Your task to perform on an android device: check android version Image 0: 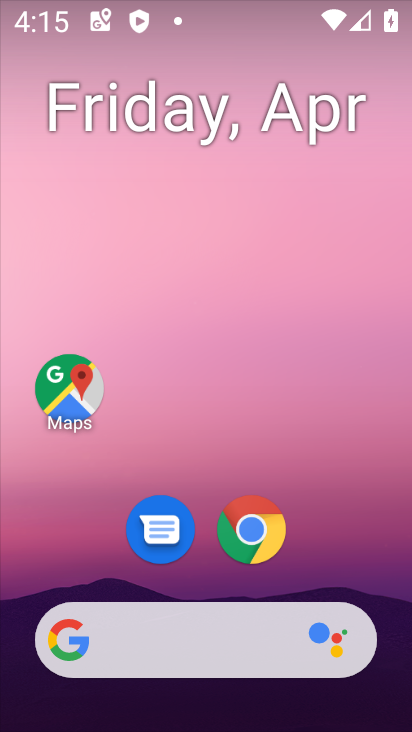
Step 0: drag from (213, 574) to (226, 92)
Your task to perform on an android device: check android version Image 1: 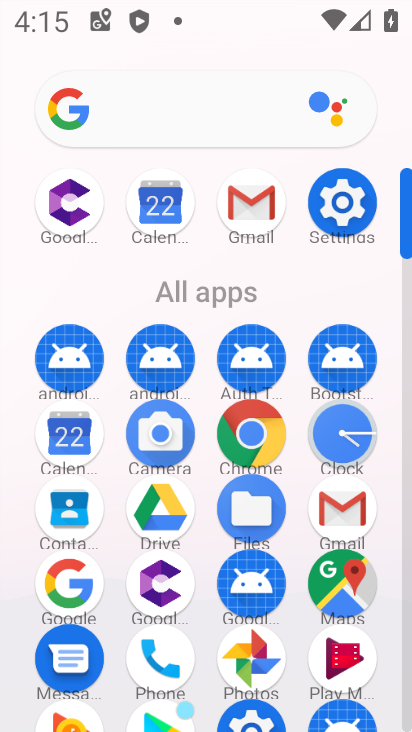
Step 1: drag from (200, 627) to (194, 311)
Your task to perform on an android device: check android version Image 2: 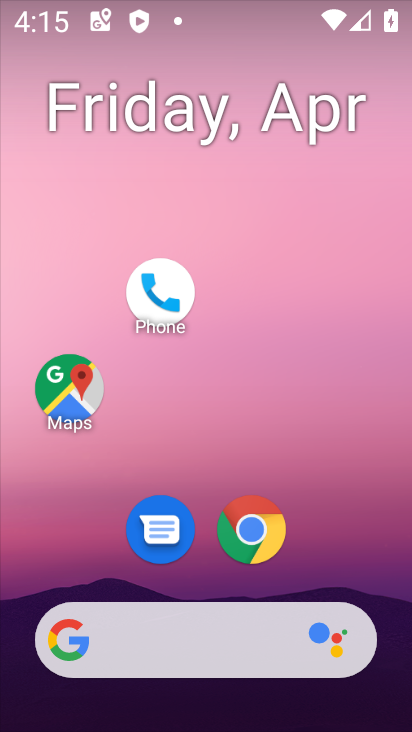
Step 2: drag from (321, 573) to (315, 171)
Your task to perform on an android device: check android version Image 3: 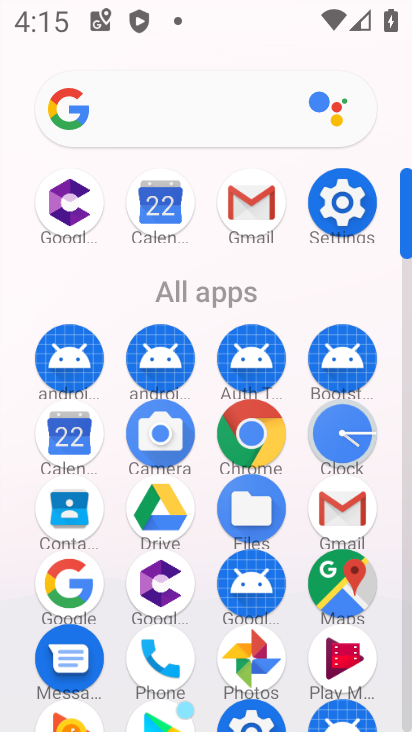
Step 3: click (343, 192)
Your task to perform on an android device: check android version Image 4: 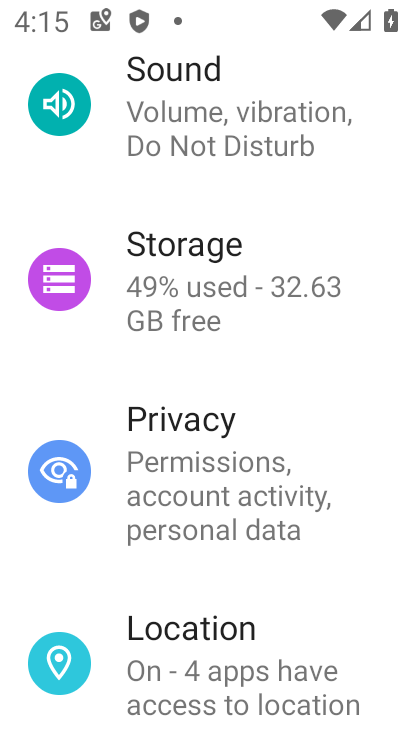
Step 4: drag from (222, 609) to (201, 160)
Your task to perform on an android device: check android version Image 5: 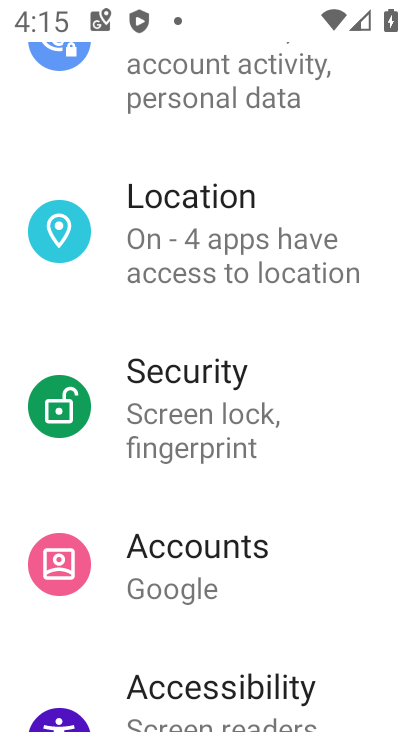
Step 5: drag from (206, 650) to (198, 296)
Your task to perform on an android device: check android version Image 6: 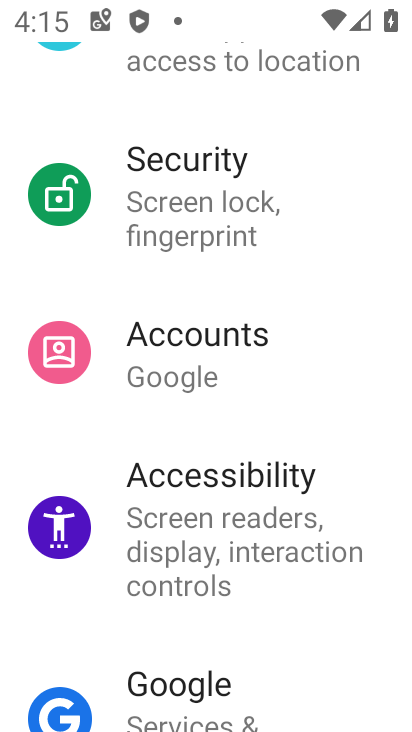
Step 6: drag from (235, 686) to (224, 242)
Your task to perform on an android device: check android version Image 7: 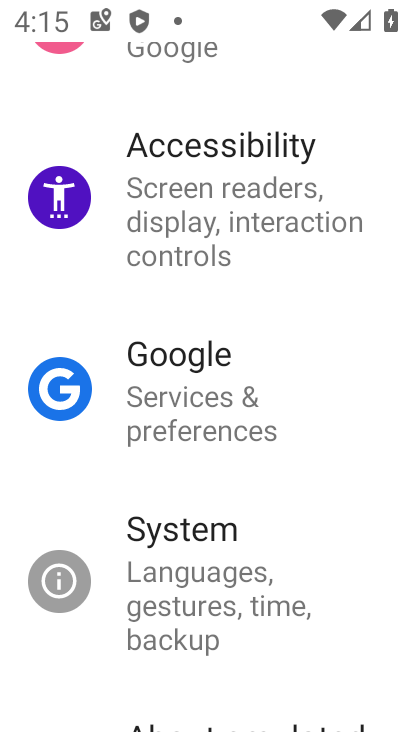
Step 7: drag from (200, 647) to (198, 231)
Your task to perform on an android device: check android version Image 8: 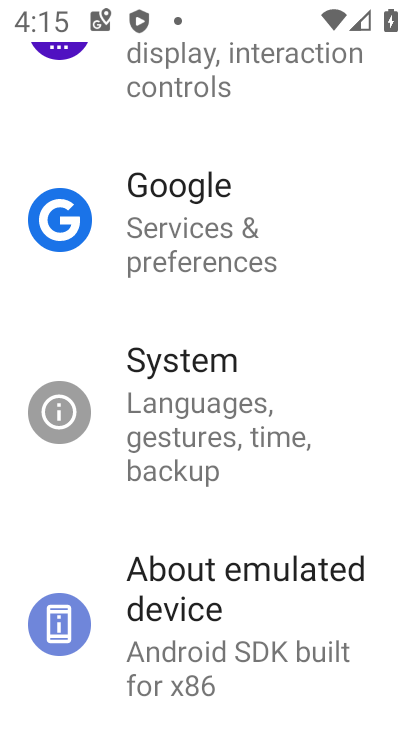
Step 8: click (198, 614)
Your task to perform on an android device: check android version Image 9: 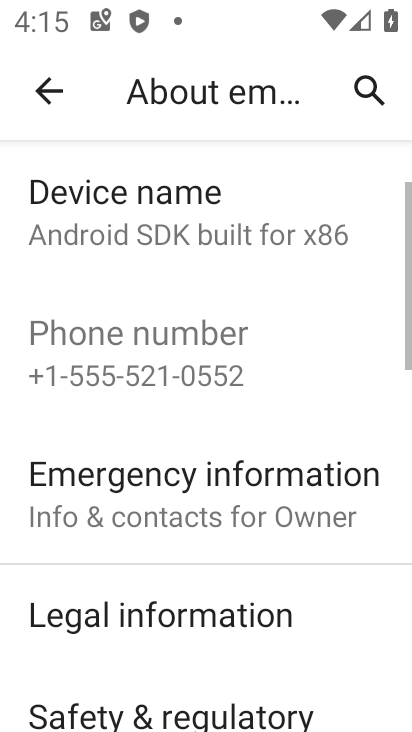
Step 9: drag from (216, 659) to (200, 219)
Your task to perform on an android device: check android version Image 10: 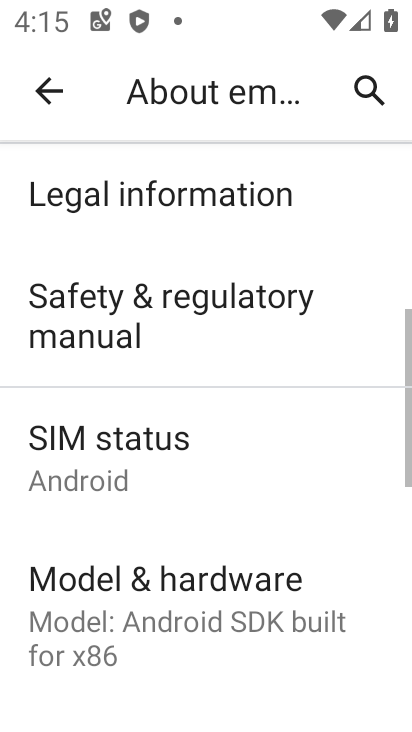
Step 10: drag from (157, 634) to (150, 292)
Your task to perform on an android device: check android version Image 11: 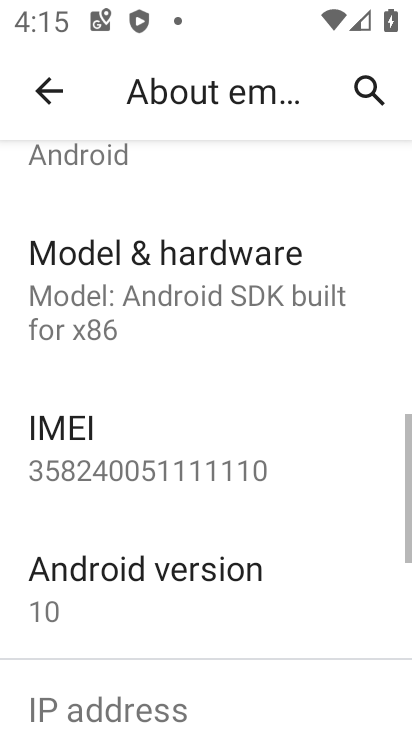
Step 11: click (154, 592)
Your task to perform on an android device: check android version Image 12: 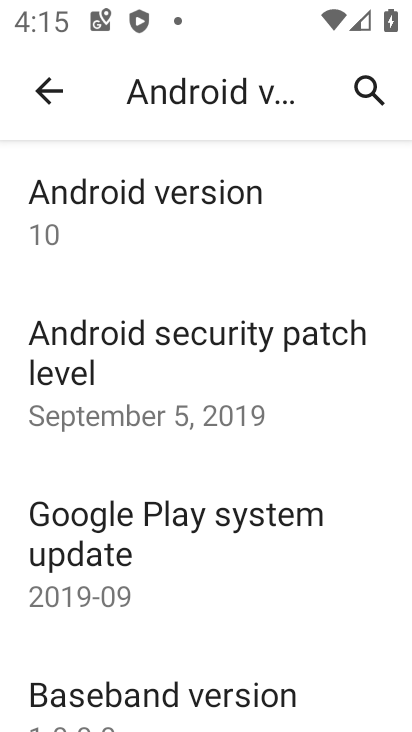
Step 12: task complete